Your task to perform on an android device: open app "Firefox Browser" (install if not already installed) Image 0: 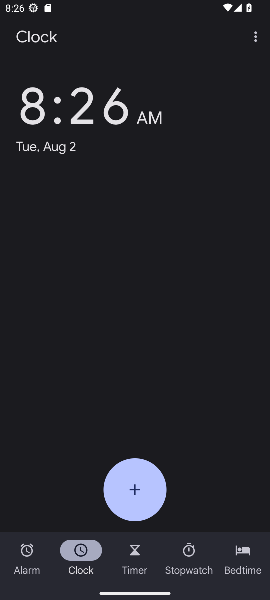
Step 0: press home button
Your task to perform on an android device: open app "Firefox Browser" (install if not already installed) Image 1: 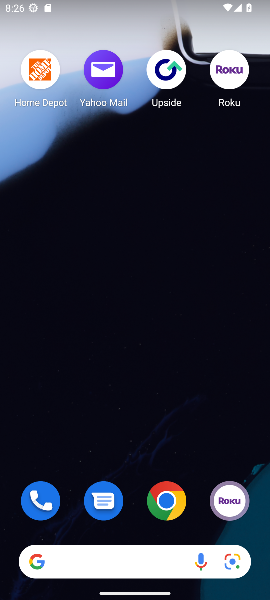
Step 1: drag from (71, 461) to (130, 96)
Your task to perform on an android device: open app "Firefox Browser" (install if not already installed) Image 2: 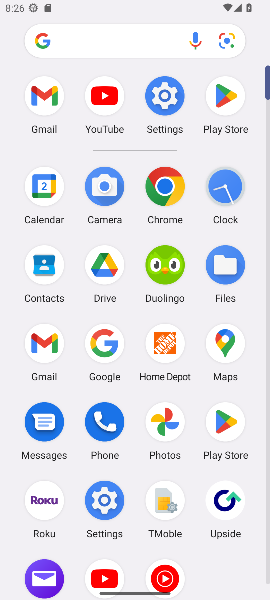
Step 2: click (222, 86)
Your task to perform on an android device: open app "Firefox Browser" (install if not already installed) Image 3: 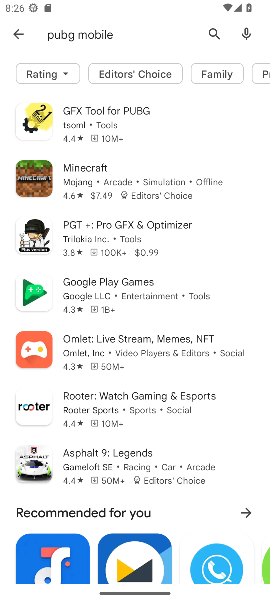
Step 3: click (211, 36)
Your task to perform on an android device: open app "Firefox Browser" (install if not already installed) Image 4: 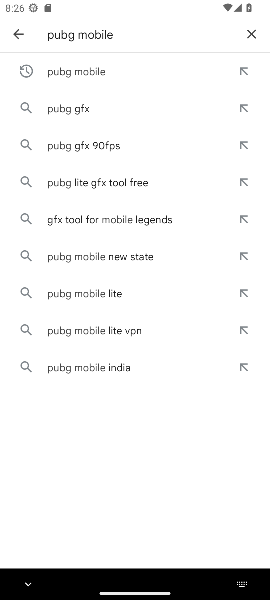
Step 4: click (252, 29)
Your task to perform on an android device: open app "Firefox Browser" (install if not already installed) Image 5: 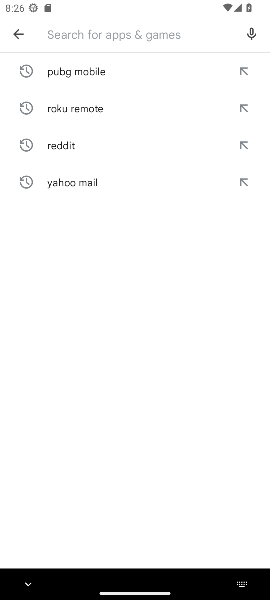
Step 5: type "Firefox Browser"
Your task to perform on an android device: open app "Firefox Browser" (install if not already installed) Image 6: 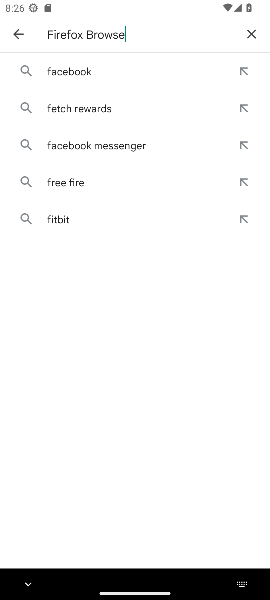
Step 6: type ""
Your task to perform on an android device: open app "Firefox Browser" (install if not already installed) Image 7: 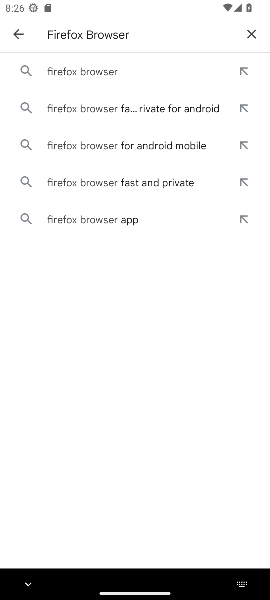
Step 7: click (145, 64)
Your task to perform on an android device: open app "Firefox Browser" (install if not already installed) Image 8: 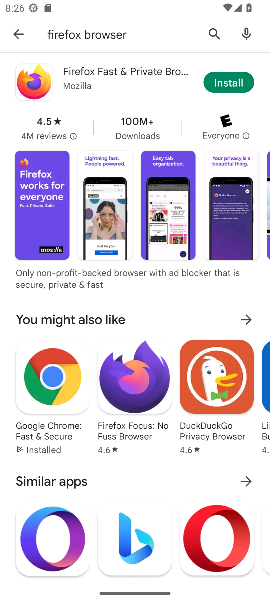
Step 8: click (78, 74)
Your task to perform on an android device: open app "Firefox Browser" (install if not already installed) Image 9: 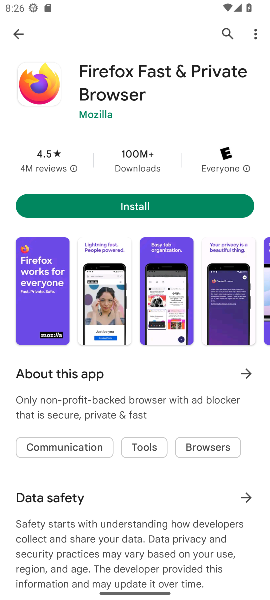
Step 9: click (185, 211)
Your task to perform on an android device: open app "Firefox Browser" (install if not already installed) Image 10: 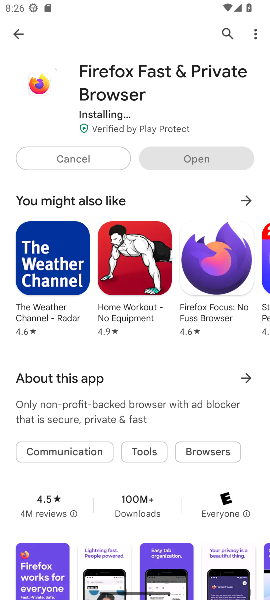
Step 10: drag from (157, 403) to (205, 88)
Your task to perform on an android device: open app "Firefox Browser" (install if not already installed) Image 11: 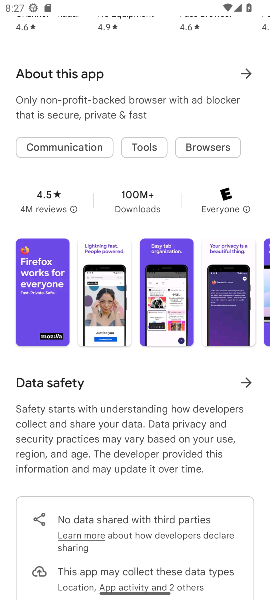
Step 11: drag from (174, 72) to (192, 475)
Your task to perform on an android device: open app "Firefox Browser" (install if not already installed) Image 12: 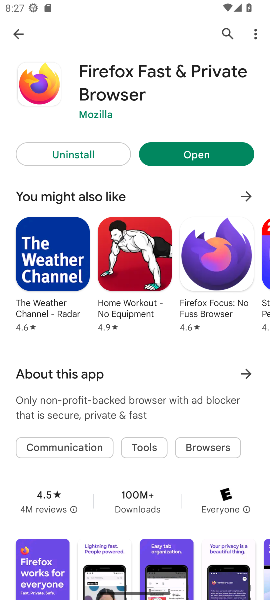
Step 12: drag from (134, 389) to (176, 224)
Your task to perform on an android device: open app "Firefox Browser" (install if not already installed) Image 13: 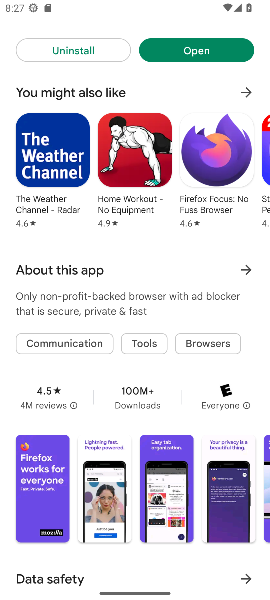
Step 13: drag from (154, 480) to (222, 192)
Your task to perform on an android device: open app "Firefox Browser" (install if not already installed) Image 14: 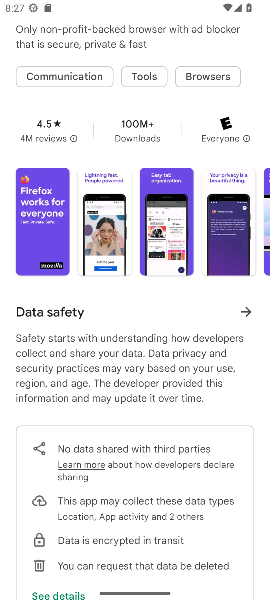
Step 14: drag from (137, 404) to (210, 120)
Your task to perform on an android device: open app "Firefox Browser" (install if not already installed) Image 15: 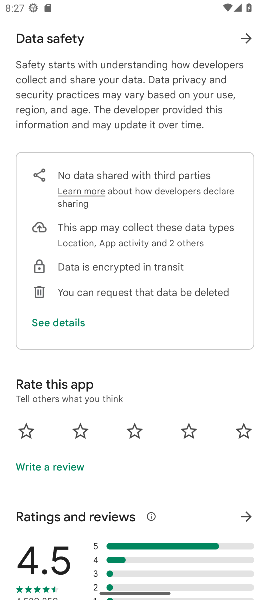
Step 15: drag from (188, 208) to (200, 598)
Your task to perform on an android device: open app "Firefox Browser" (install if not already installed) Image 16: 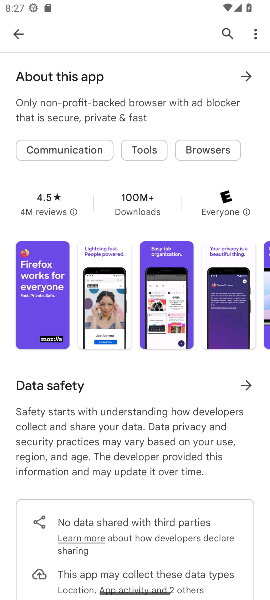
Step 16: drag from (167, 143) to (206, 598)
Your task to perform on an android device: open app "Firefox Browser" (install if not already installed) Image 17: 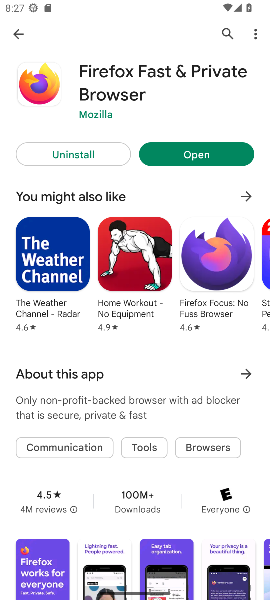
Step 17: drag from (184, 179) to (173, 576)
Your task to perform on an android device: open app "Firefox Browser" (install if not already installed) Image 18: 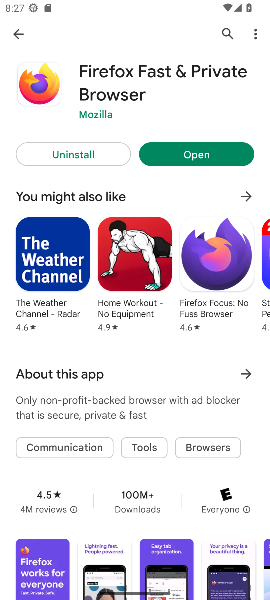
Step 18: click (189, 148)
Your task to perform on an android device: open app "Firefox Browser" (install if not already installed) Image 19: 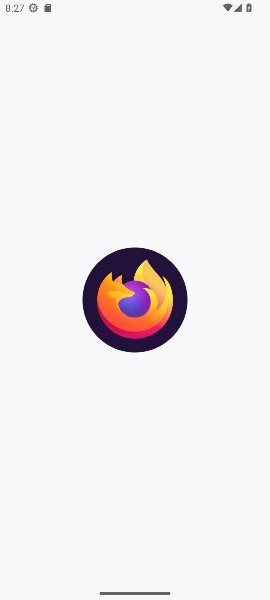
Step 19: task complete